Your task to perform on an android device: all mails in gmail Image 0: 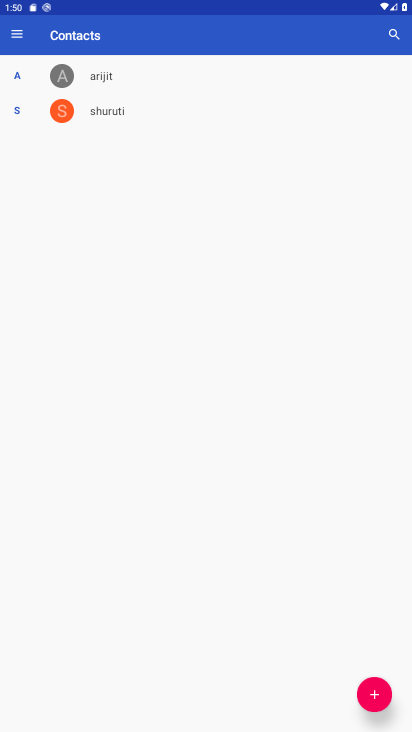
Step 0: press home button
Your task to perform on an android device: all mails in gmail Image 1: 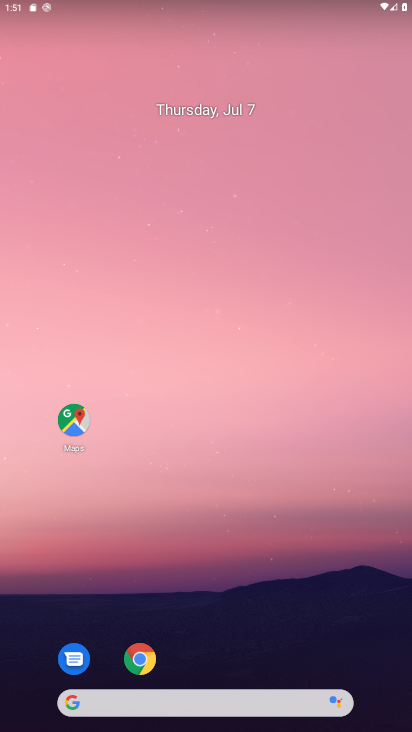
Step 1: drag from (219, 671) to (213, 146)
Your task to perform on an android device: all mails in gmail Image 2: 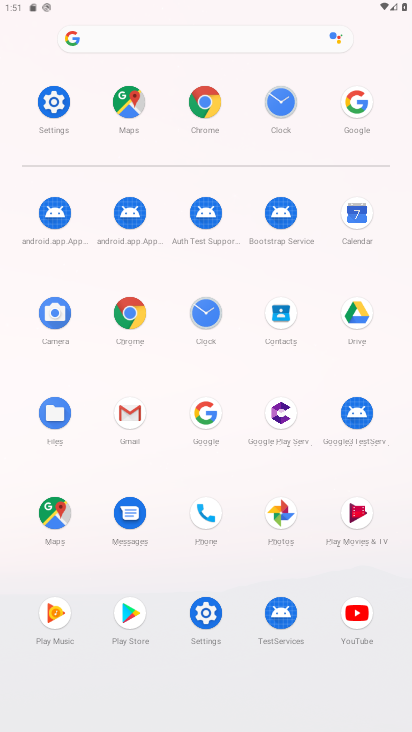
Step 2: click (133, 409)
Your task to perform on an android device: all mails in gmail Image 3: 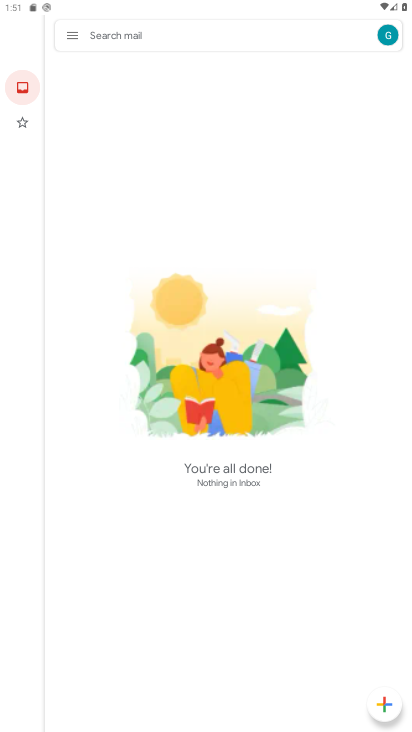
Step 3: click (69, 34)
Your task to perform on an android device: all mails in gmail Image 4: 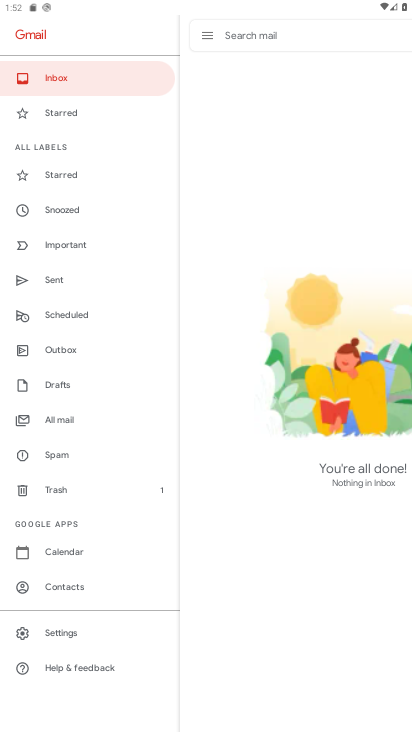
Step 4: click (62, 417)
Your task to perform on an android device: all mails in gmail Image 5: 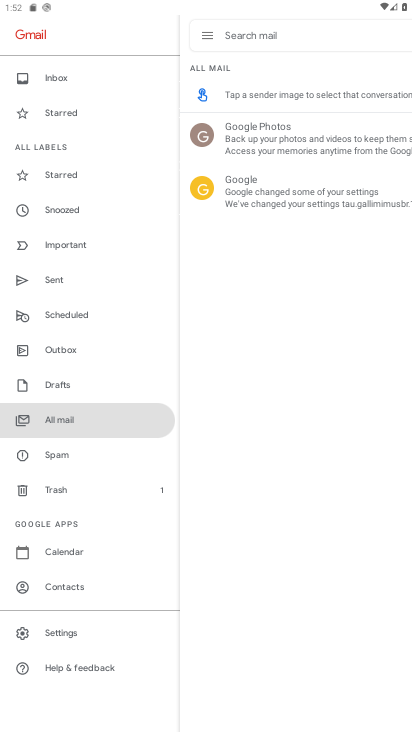
Step 5: task complete